Your task to perform on an android device: Search for logitech g pro on target.com, select the first entry, and add it to the cart. Image 0: 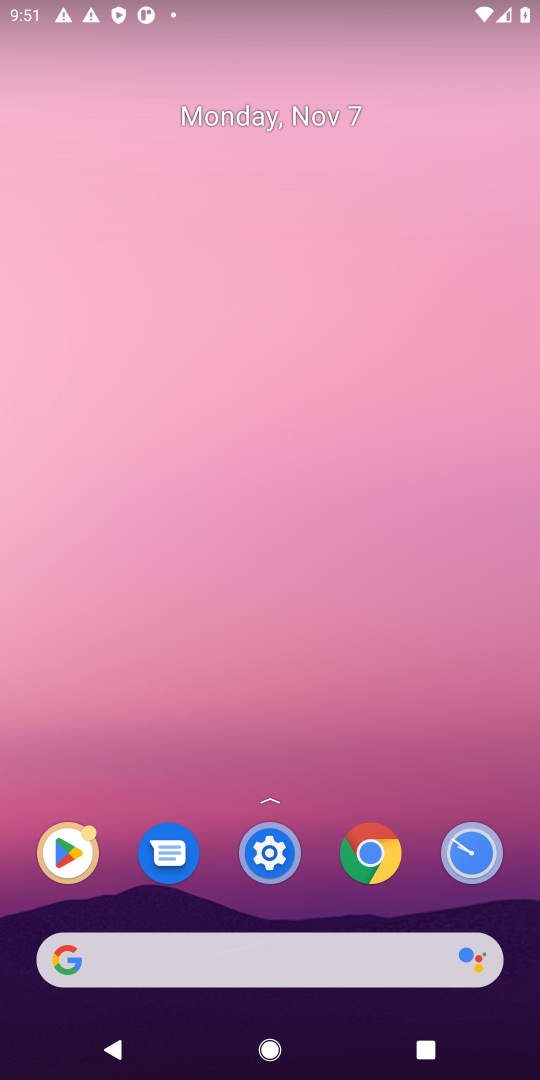
Step 0: press home button
Your task to perform on an android device: Search for logitech g pro on target.com, select the first entry, and add it to the cart. Image 1: 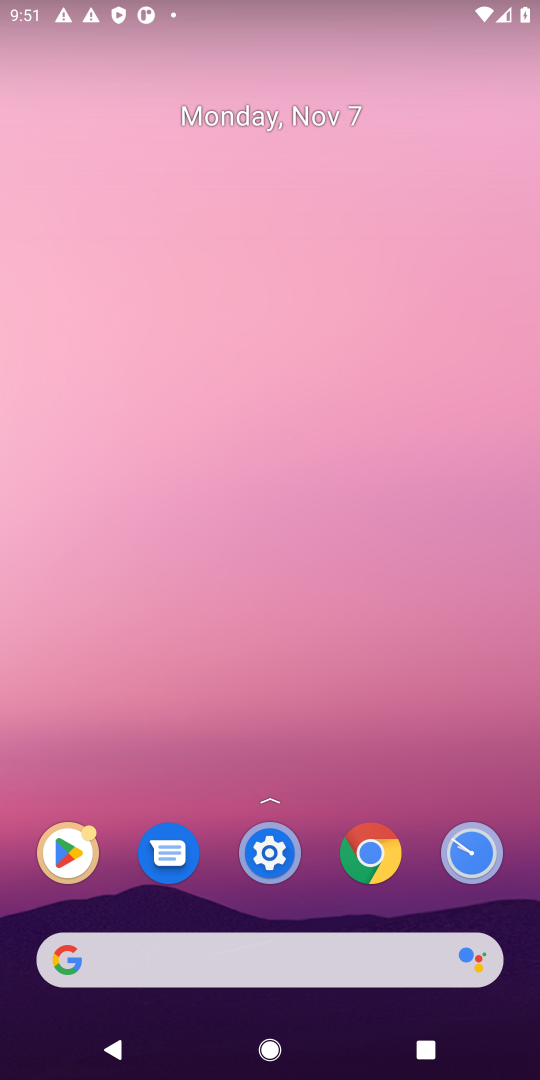
Step 1: click (307, 940)
Your task to perform on an android device: Search for logitech g pro on target.com, select the first entry, and add it to the cart. Image 2: 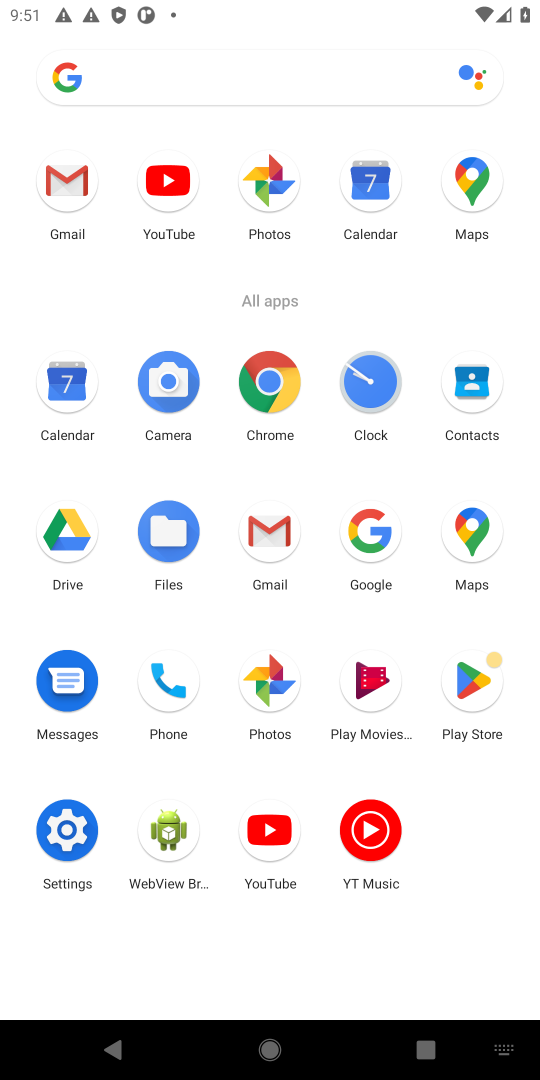
Step 2: click (135, 222)
Your task to perform on an android device: Search for logitech g pro on target.com, select the first entry, and add it to the cart. Image 3: 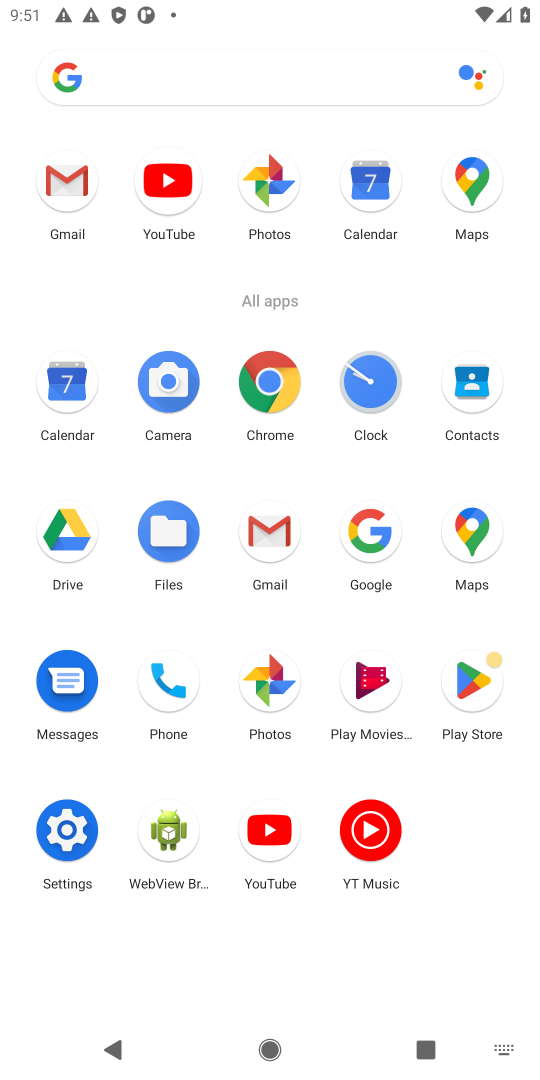
Step 3: task complete